Your task to perform on an android device: toggle translation in the chrome app Image 0: 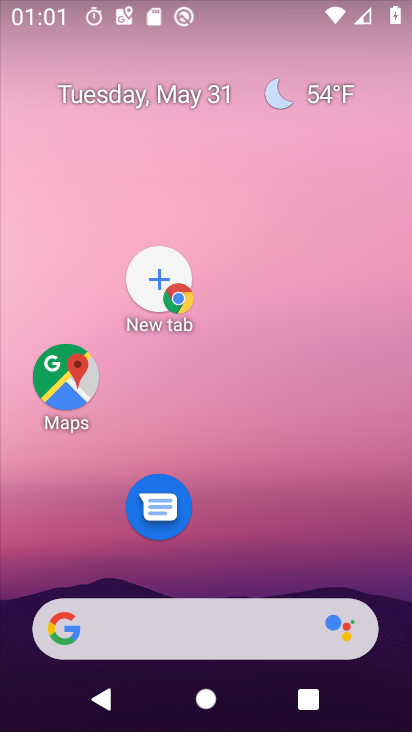
Step 0: drag from (272, 692) to (176, 271)
Your task to perform on an android device: toggle translation in the chrome app Image 1: 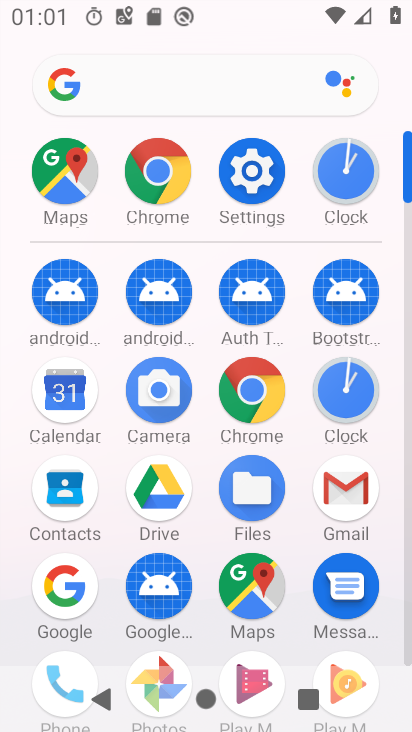
Step 1: click (141, 170)
Your task to perform on an android device: toggle translation in the chrome app Image 2: 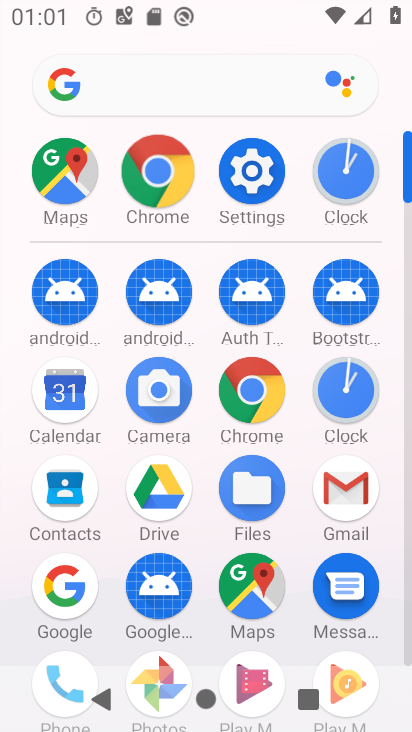
Step 2: click (141, 171)
Your task to perform on an android device: toggle translation in the chrome app Image 3: 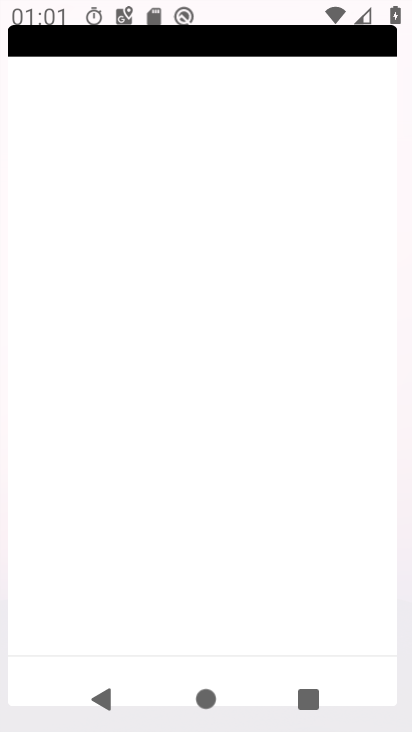
Step 3: click (144, 175)
Your task to perform on an android device: toggle translation in the chrome app Image 4: 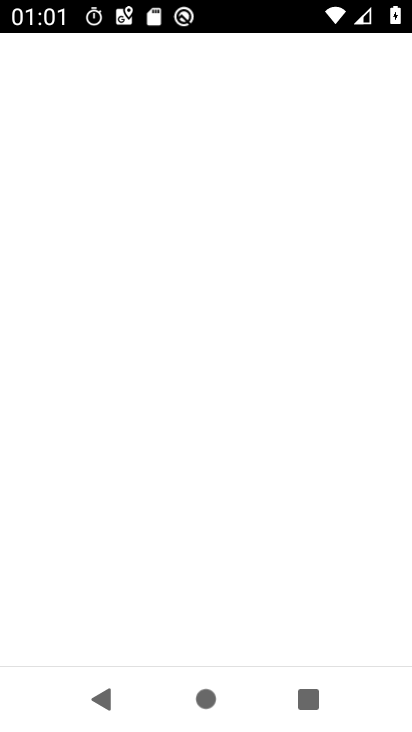
Step 4: click (149, 176)
Your task to perform on an android device: toggle translation in the chrome app Image 5: 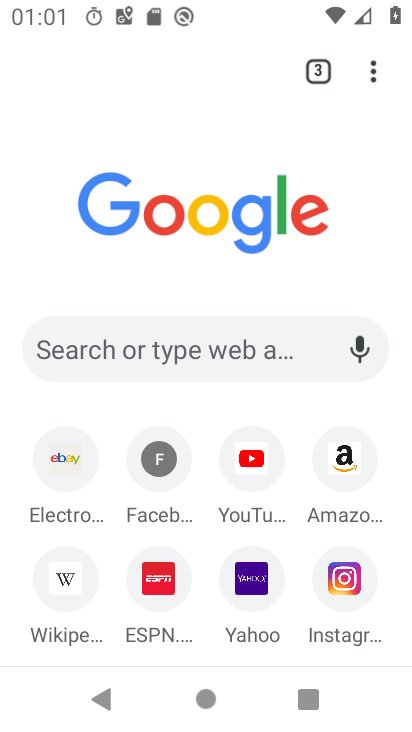
Step 5: press back button
Your task to perform on an android device: toggle translation in the chrome app Image 6: 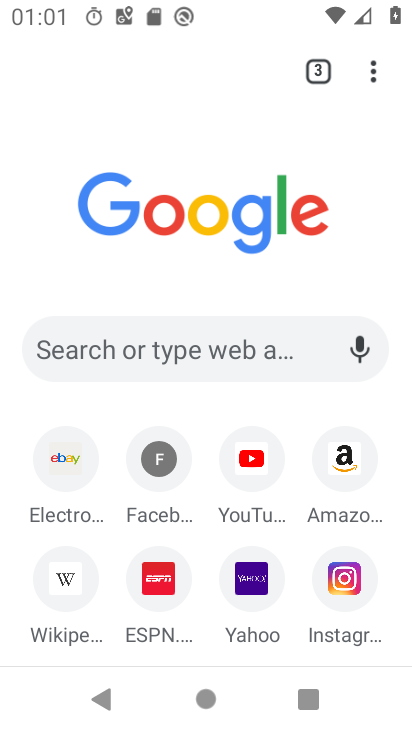
Step 6: press back button
Your task to perform on an android device: toggle translation in the chrome app Image 7: 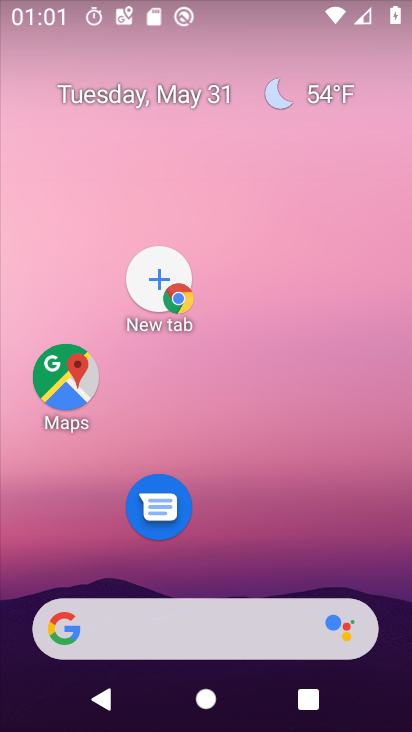
Step 7: drag from (219, 613) to (131, 116)
Your task to perform on an android device: toggle translation in the chrome app Image 8: 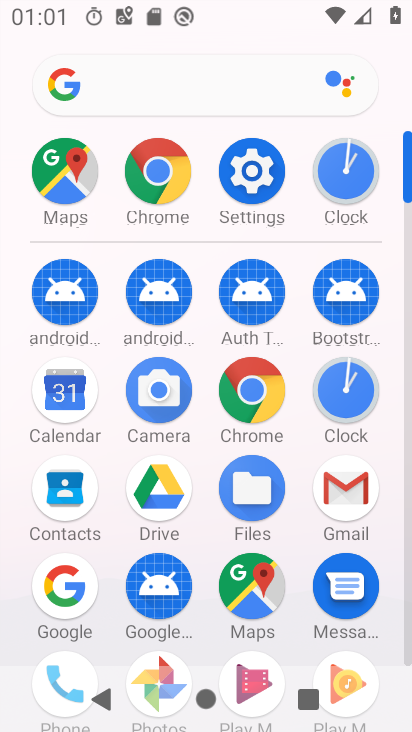
Step 8: click (165, 180)
Your task to perform on an android device: toggle translation in the chrome app Image 9: 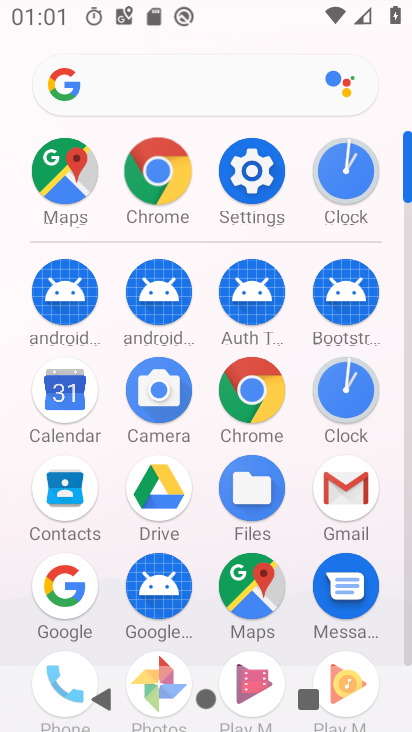
Step 9: click (167, 183)
Your task to perform on an android device: toggle translation in the chrome app Image 10: 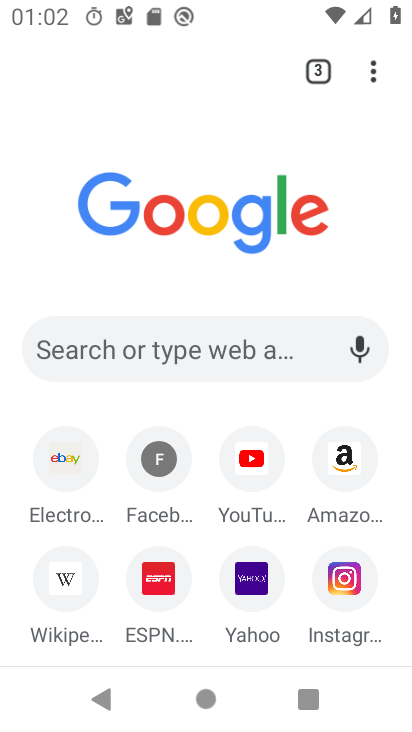
Step 10: drag from (374, 81) to (121, 491)
Your task to perform on an android device: toggle translation in the chrome app Image 11: 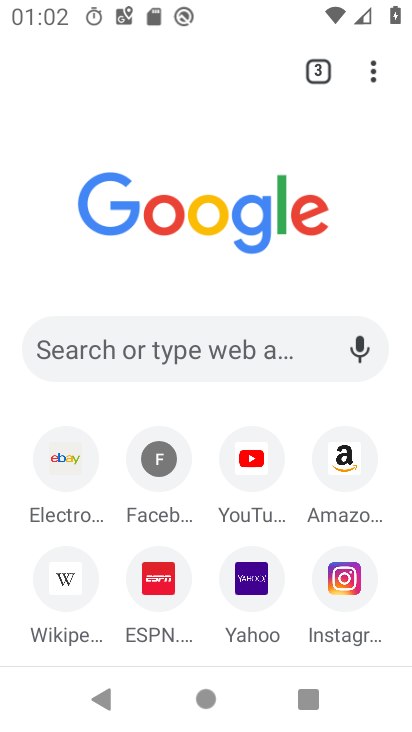
Step 11: click (121, 491)
Your task to perform on an android device: toggle translation in the chrome app Image 12: 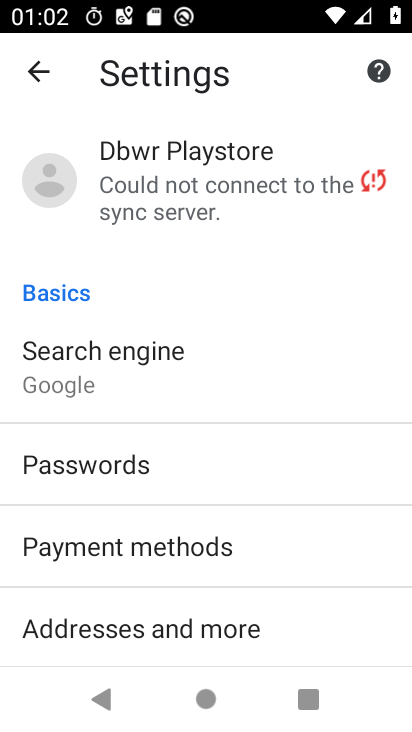
Step 12: drag from (184, 487) to (129, 103)
Your task to perform on an android device: toggle translation in the chrome app Image 13: 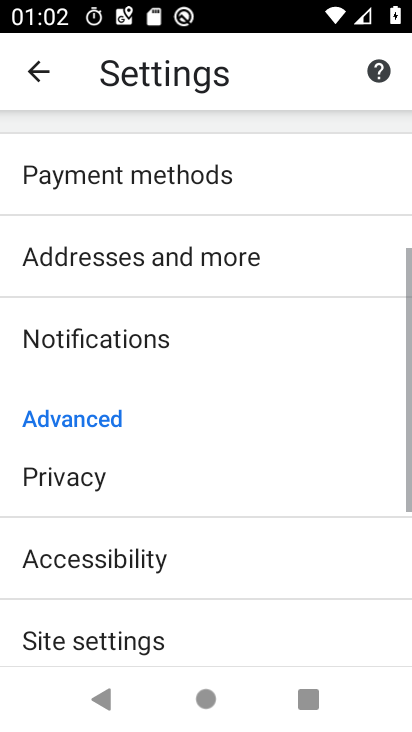
Step 13: drag from (165, 415) to (127, 100)
Your task to perform on an android device: toggle translation in the chrome app Image 14: 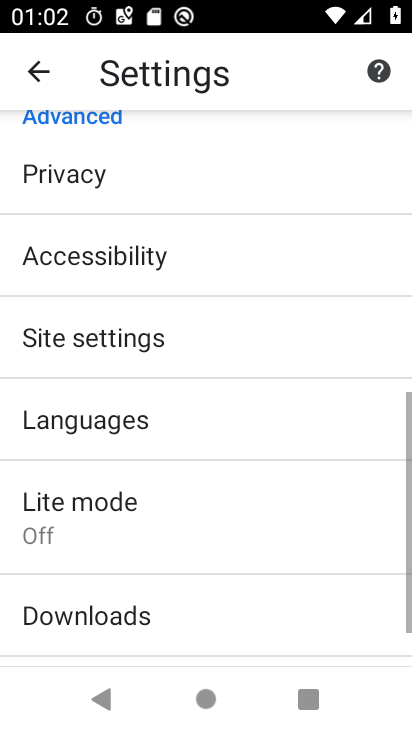
Step 14: drag from (139, 471) to (137, 136)
Your task to perform on an android device: toggle translation in the chrome app Image 15: 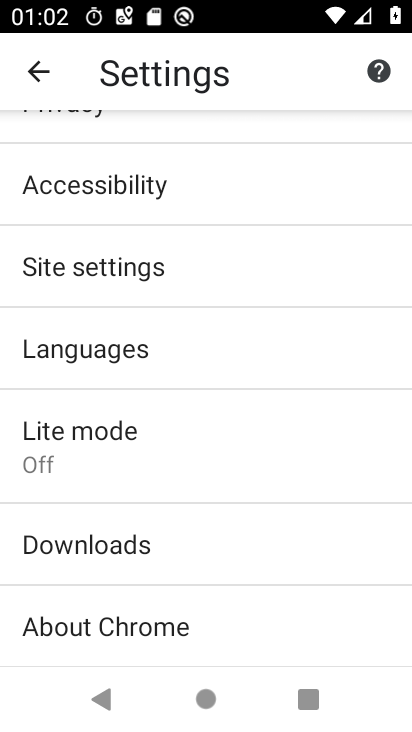
Step 15: click (81, 357)
Your task to perform on an android device: toggle translation in the chrome app Image 16: 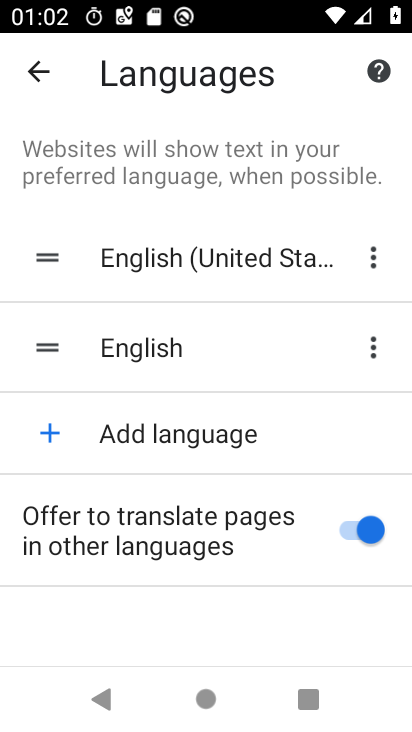
Step 16: click (377, 522)
Your task to perform on an android device: toggle translation in the chrome app Image 17: 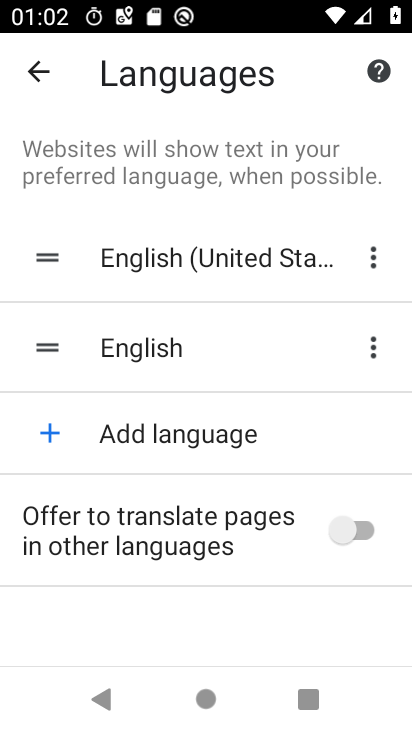
Step 17: task complete